Your task to perform on an android device: Open Google Image 0: 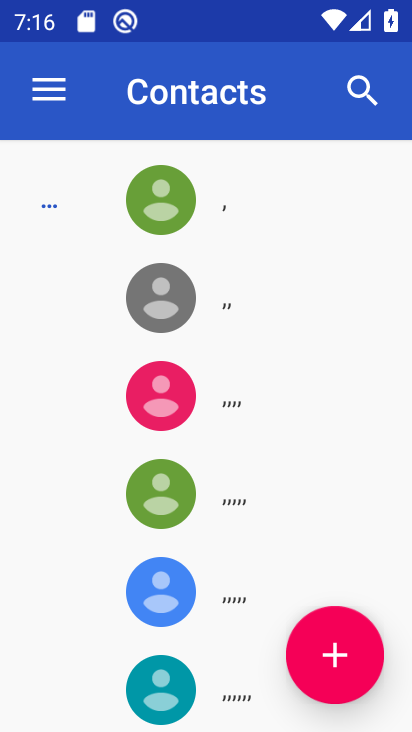
Step 0: press home button
Your task to perform on an android device: Open Google Image 1: 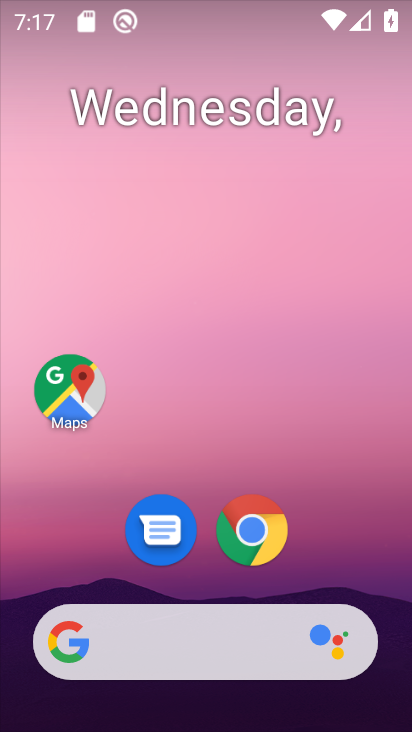
Step 1: drag from (396, 643) to (313, 20)
Your task to perform on an android device: Open Google Image 2: 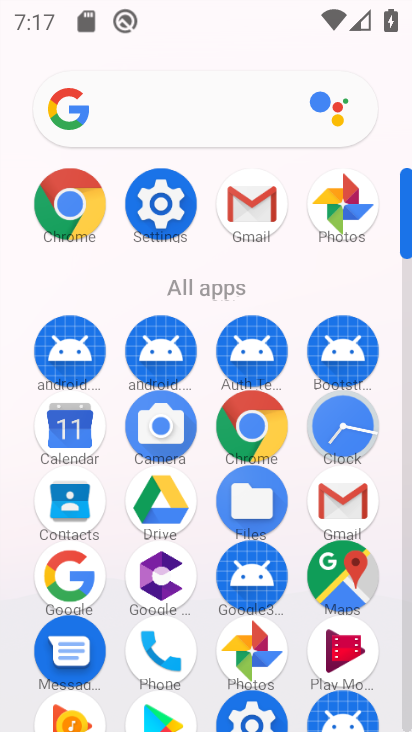
Step 2: click (83, 544)
Your task to perform on an android device: Open Google Image 3: 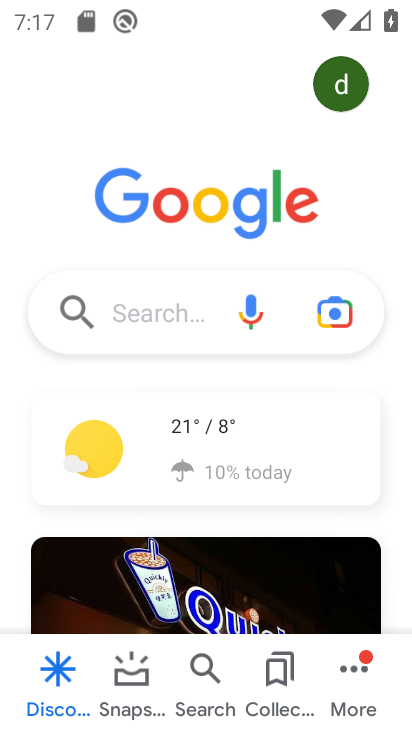
Step 3: task complete